Your task to perform on an android device: open wifi settings Image 0: 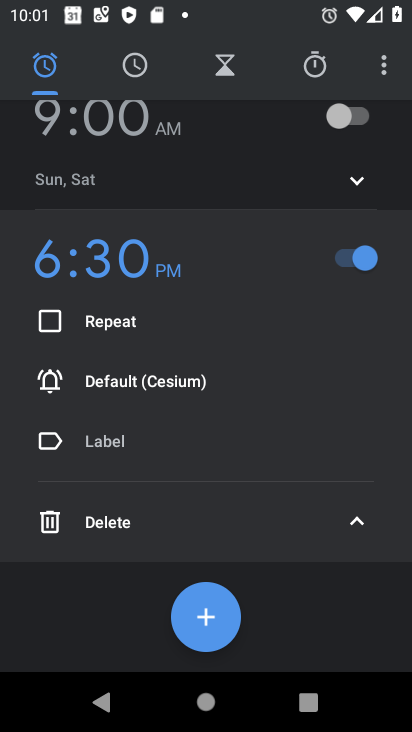
Step 0: press home button
Your task to perform on an android device: open wifi settings Image 1: 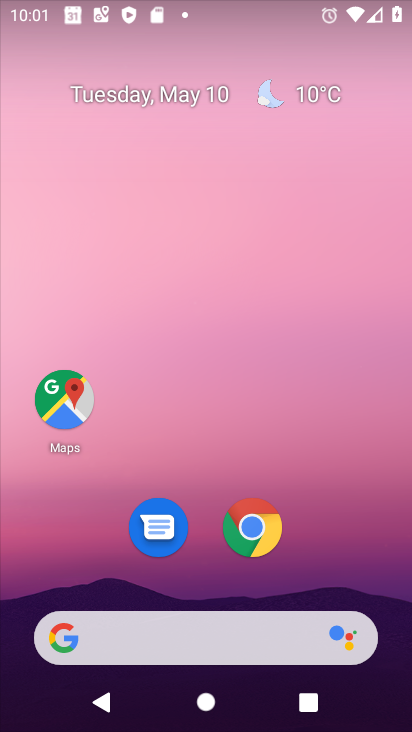
Step 1: drag from (182, 719) to (177, 163)
Your task to perform on an android device: open wifi settings Image 2: 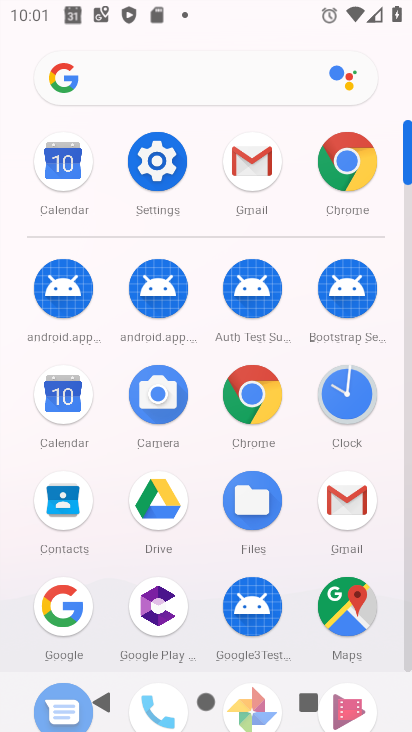
Step 2: click (156, 155)
Your task to perform on an android device: open wifi settings Image 3: 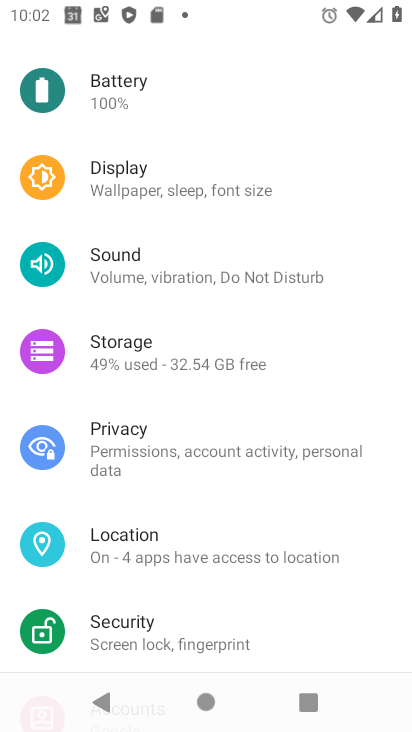
Step 3: drag from (286, 124) to (261, 597)
Your task to perform on an android device: open wifi settings Image 4: 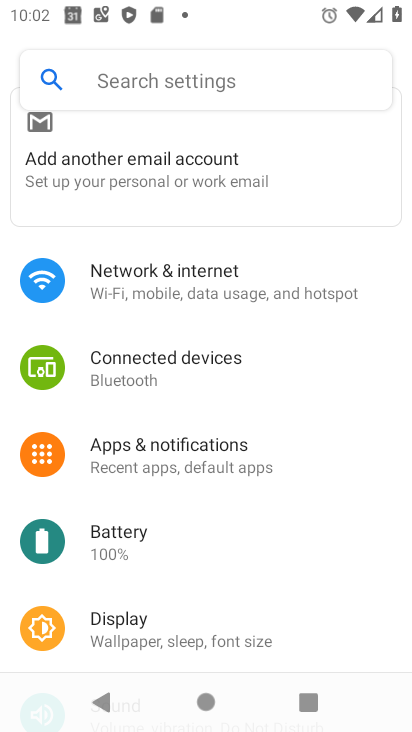
Step 4: click (191, 274)
Your task to perform on an android device: open wifi settings Image 5: 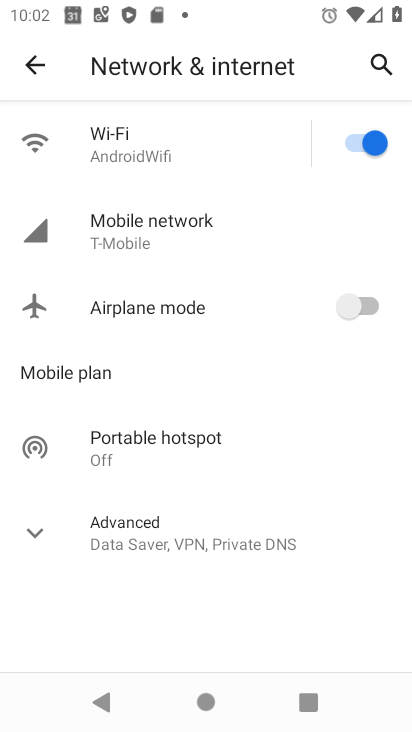
Step 5: click (113, 147)
Your task to perform on an android device: open wifi settings Image 6: 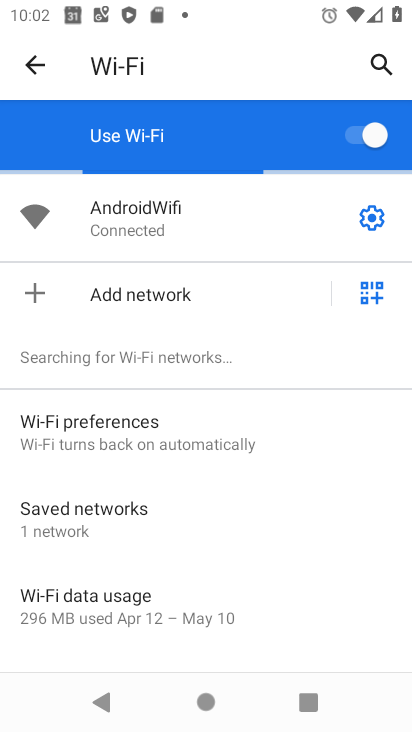
Step 6: task complete